Your task to perform on an android device: clear all cookies in the chrome app Image 0: 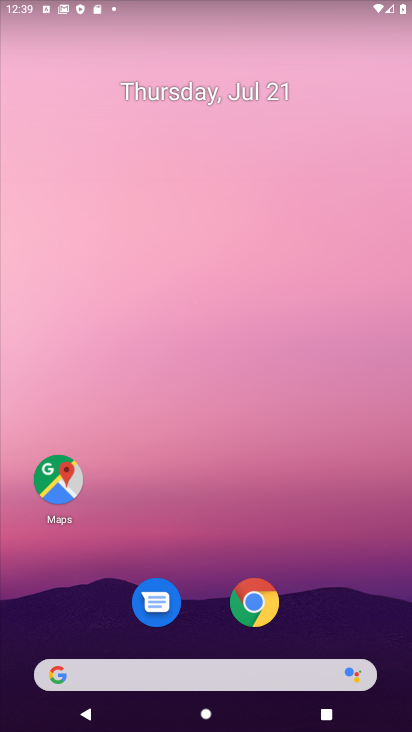
Step 0: drag from (378, 576) to (313, 125)
Your task to perform on an android device: clear all cookies in the chrome app Image 1: 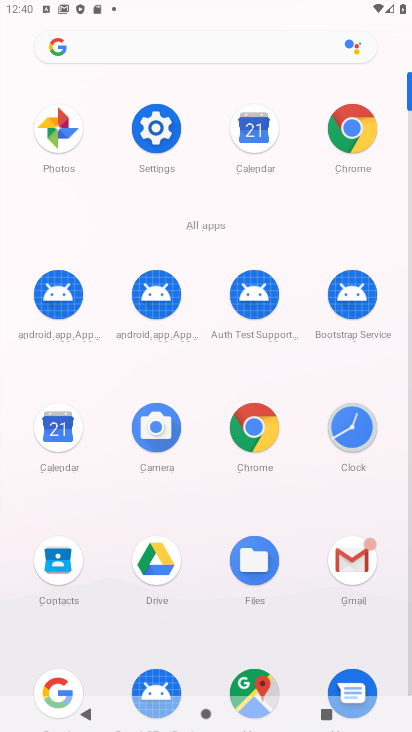
Step 1: click (345, 142)
Your task to perform on an android device: clear all cookies in the chrome app Image 2: 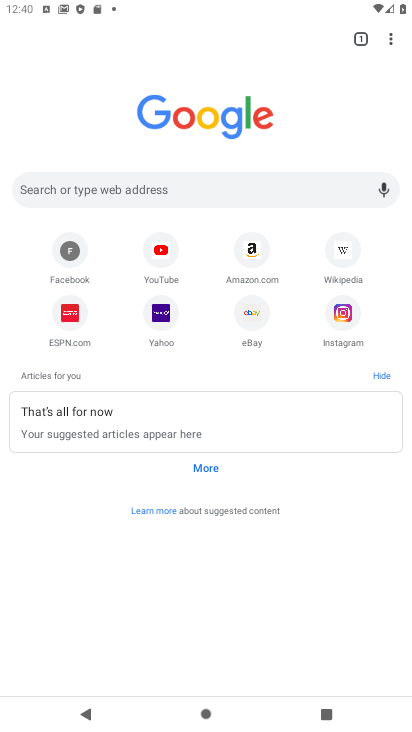
Step 2: click (385, 36)
Your task to perform on an android device: clear all cookies in the chrome app Image 3: 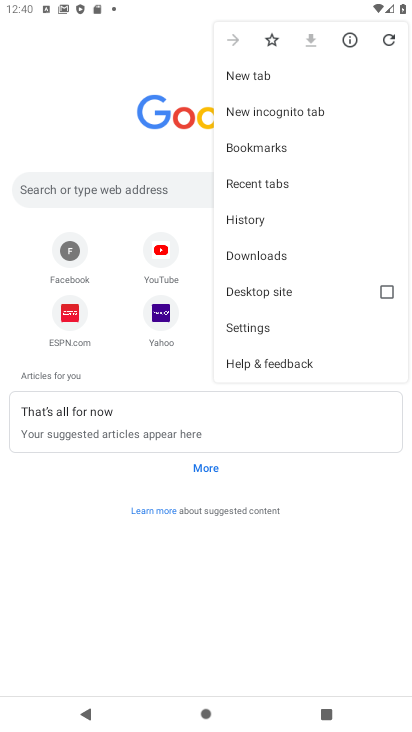
Step 3: click (258, 221)
Your task to perform on an android device: clear all cookies in the chrome app Image 4: 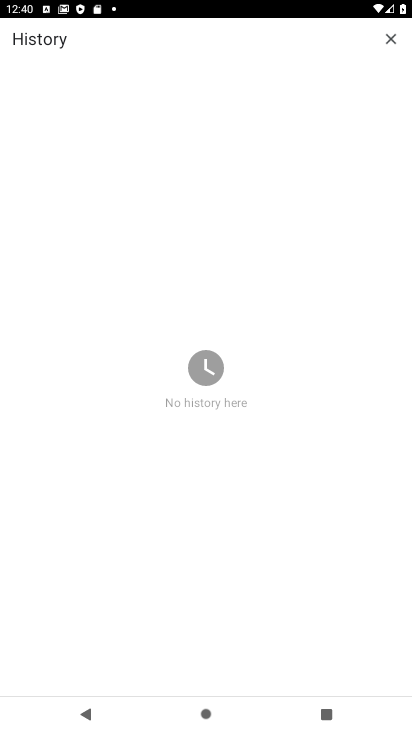
Step 4: task complete